Your task to perform on an android device: Open Android settings Image 0: 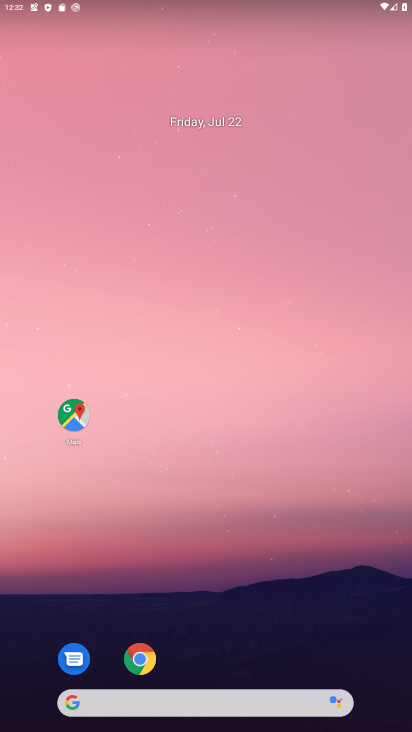
Step 0: drag from (232, 235) to (249, 142)
Your task to perform on an android device: Open Android settings Image 1: 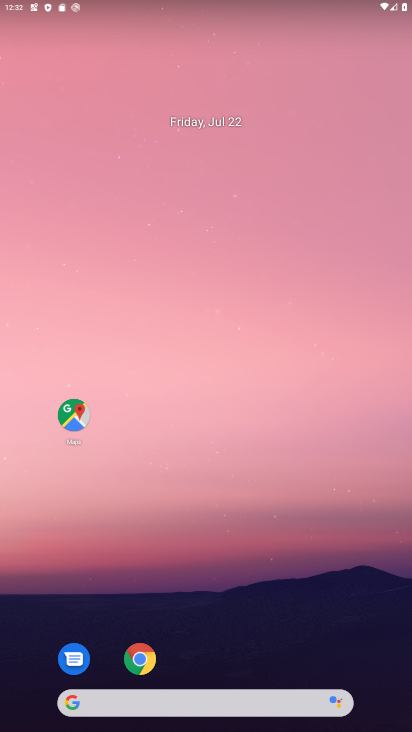
Step 1: drag from (211, 149) to (211, 71)
Your task to perform on an android device: Open Android settings Image 2: 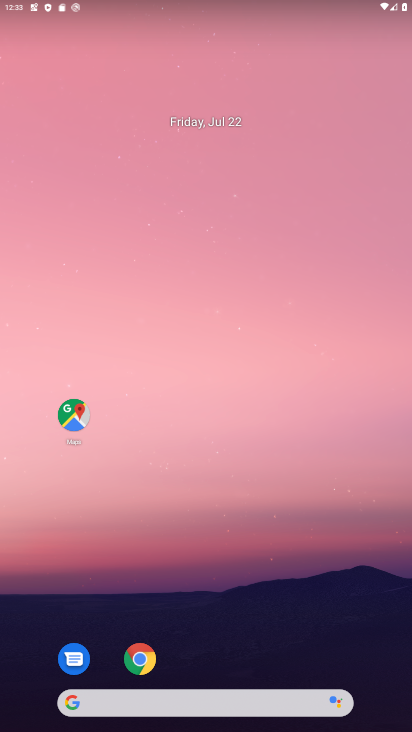
Step 2: drag from (181, 655) to (200, 194)
Your task to perform on an android device: Open Android settings Image 3: 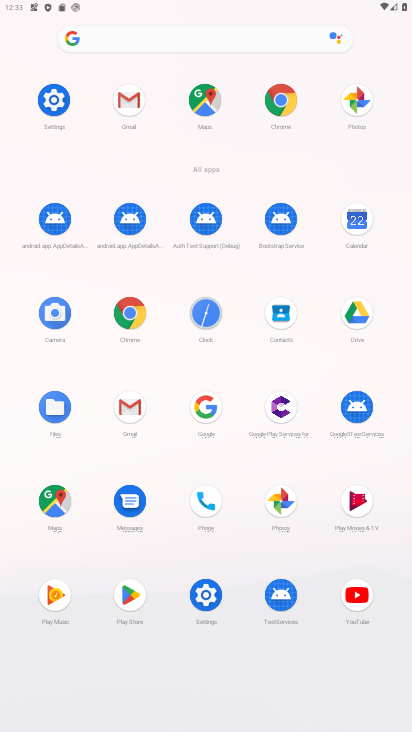
Step 3: click (46, 99)
Your task to perform on an android device: Open Android settings Image 4: 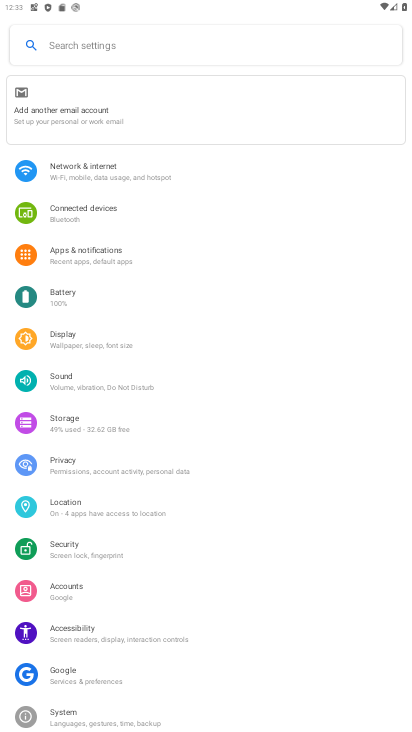
Step 4: drag from (94, 599) to (146, 287)
Your task to perform on an android device: Open Android settings Image 5: 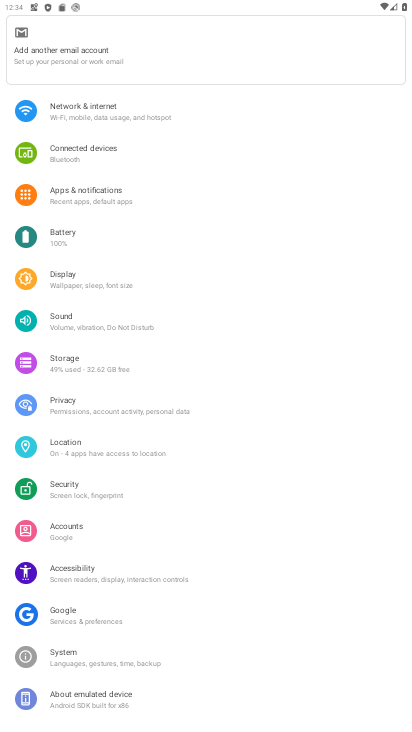
Step 5: click (74, 696)
Your task to perform on an android device: Open Android settings Image 6: 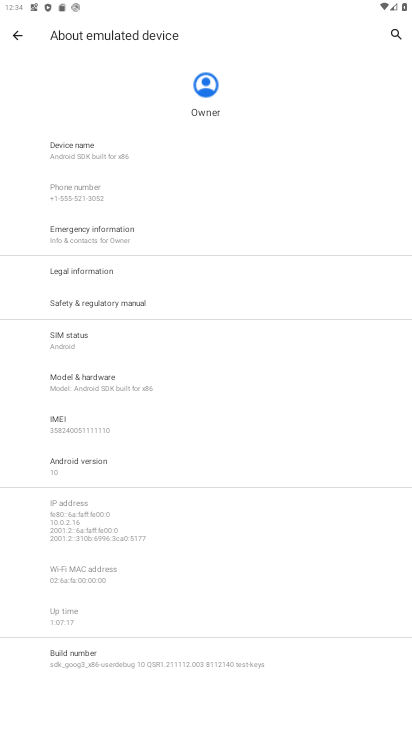
Step 6: click (82, 462)
Your task to perform on an android device: Open Android settings Image 7: 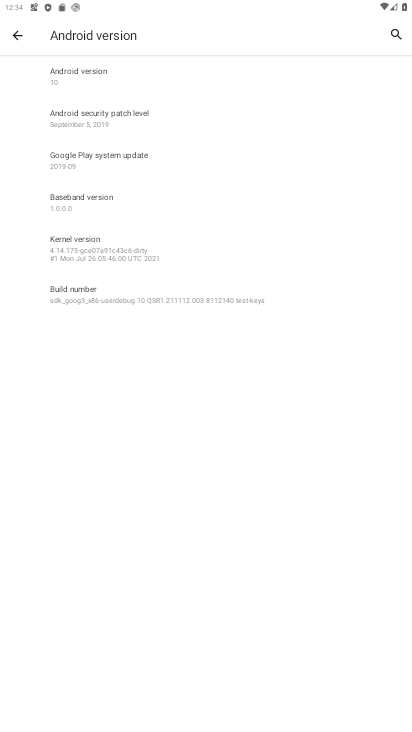
Step 7: task complete